Your task to perform on an android device: What is the recent news? Image 0: 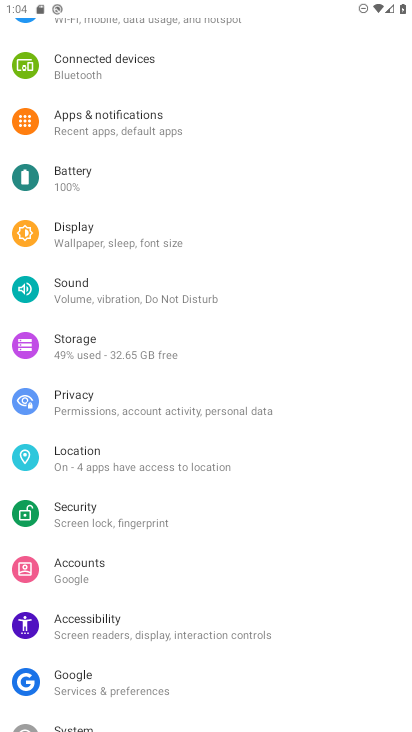
Step 0: press home button
Your task to perform on an android device: What is the recent news? Image 1: 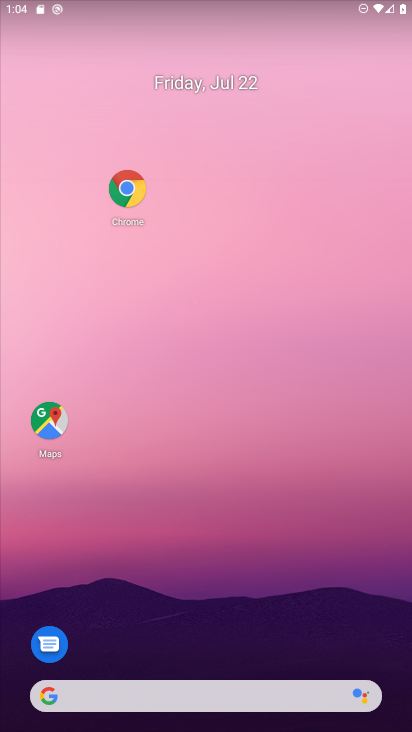
Step 1: click (122, 703)
Your task to perform on an android device: What is the recent news? Image 2: 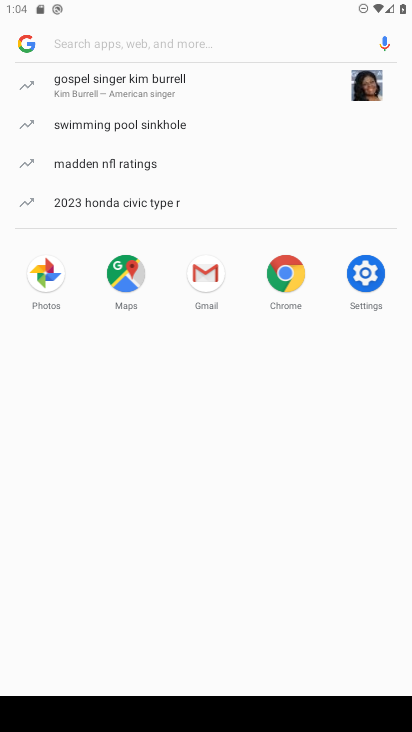
Step 2: click (34, 41)
Your task to perform on an android device: What is the recent news? Image 3: 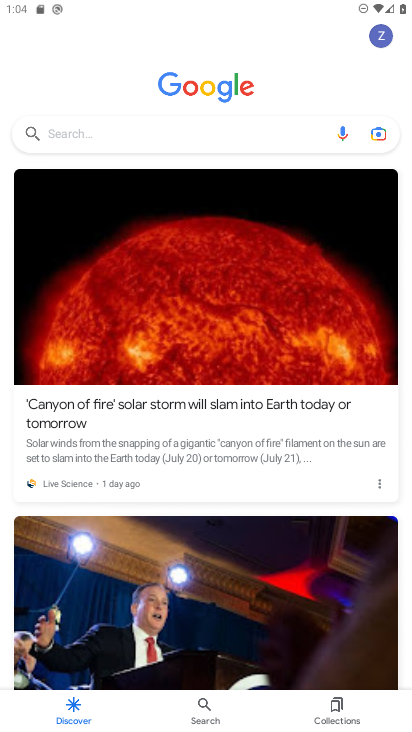
Step 3: task complete